Your task to perform on an android device: toggle airplane mode Image 0: 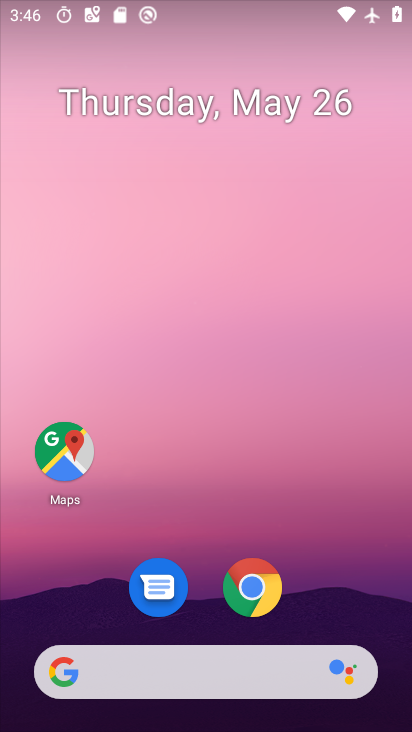
Step 0: drag from (304, 652) to (235, 291)
Your task to perform on an android device: toggle airplane mode Image 1: 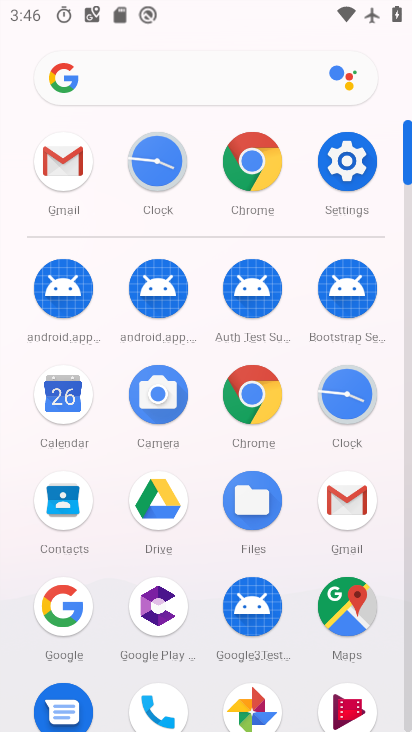
Step 1: click (354, 169)
Your task to perform on an android device: toggle airplane mode Image 2: 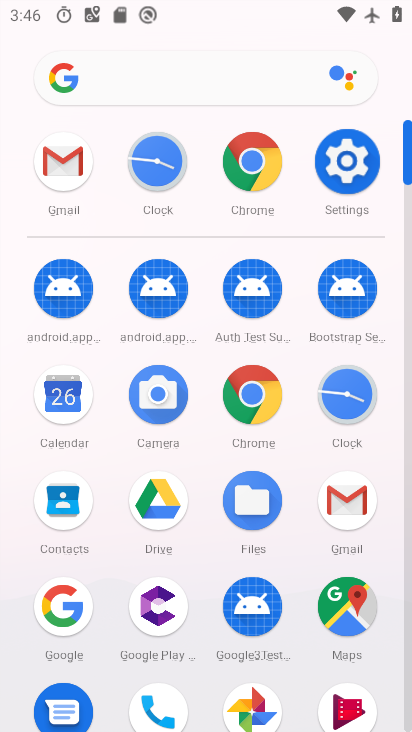
Step 2: click (354, 169)
Your task to perform on an android device: toggle airplane mode Image 3: 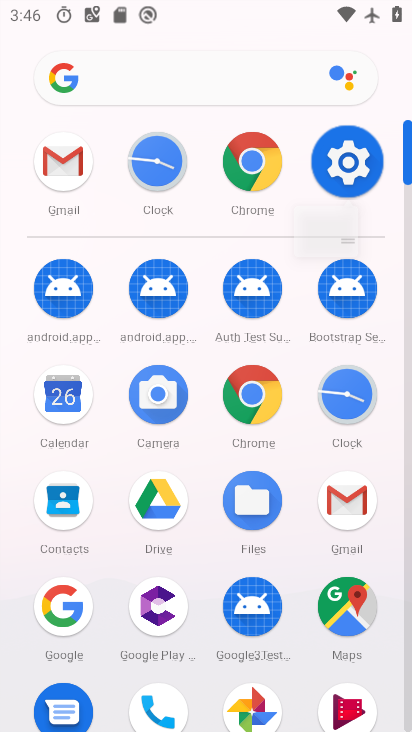
Step 3: click (354, 169)
Your task to perform on an android device: toggle airplane mode Image 4: 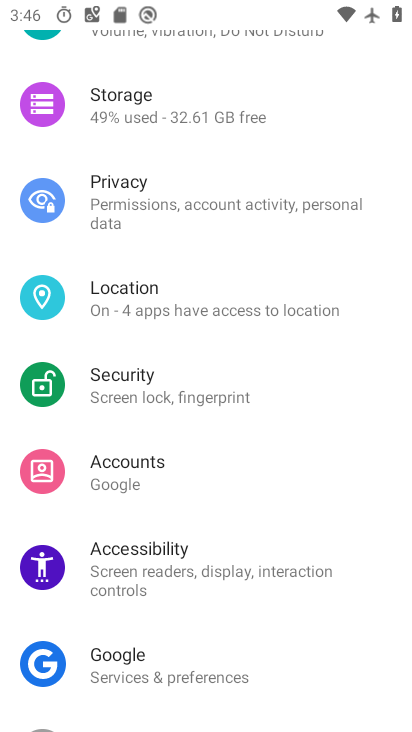
Step 4: drag from (154, 186) to (186, 568)
Your task to perform on an android device: toggle airplane mode Image 5: 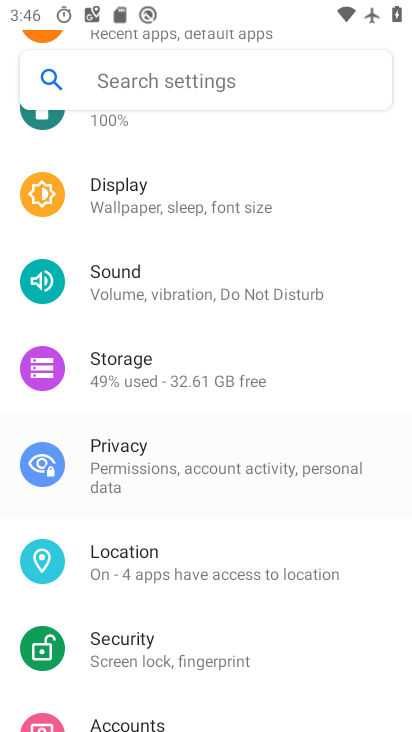
Step 5: drag from (201, 228) to (203, 526)
Your task to perform on an android device: toggle airplane mode Image 6: 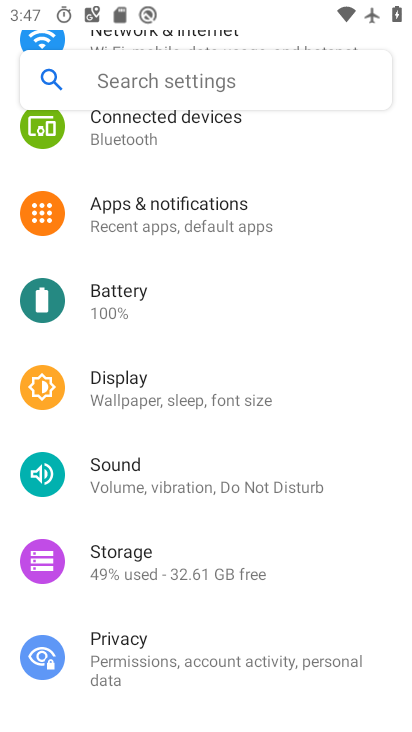
Step 6: drag from (179, 151) to (205, 461)
Your task to perform on an android device: toggle airplane mode Image 7: 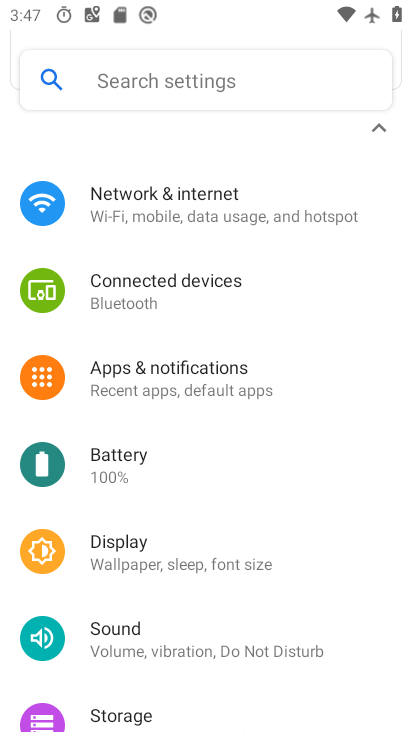
Step 7: drag from (173, 207) to (125, 545)
Your task to perform on an android device: toggle airplane mode Image 8: 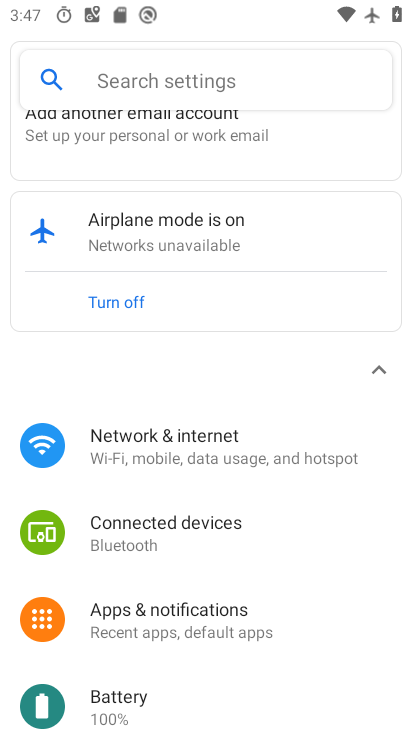
Step 8: drag from (119, 284) to (166, 526)
Your task to perform on an android device: toggle airplane mode Image 9: 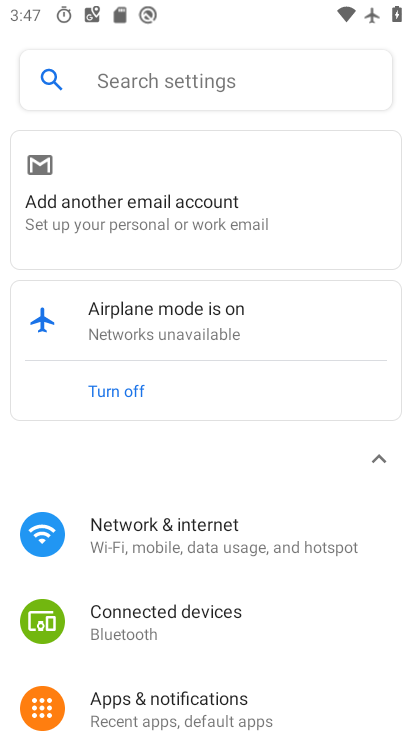
Step 9: click (157, 529)
Your task to perform on an android device: toggle airplane mode Image 10: 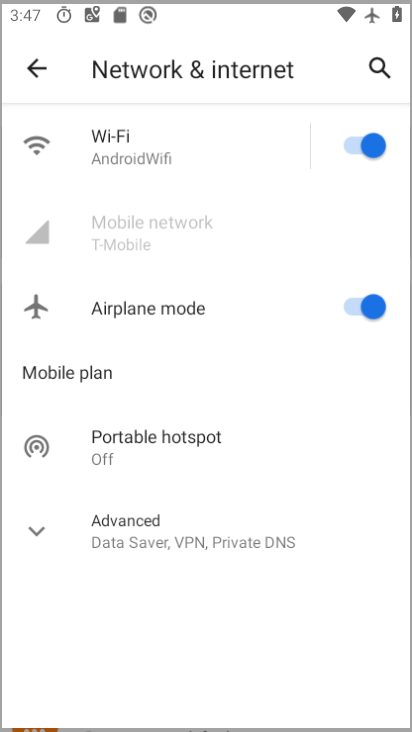
Step 10: click (156, 528)
Your task to perform on an android device: toggle airplane mode Image 11: 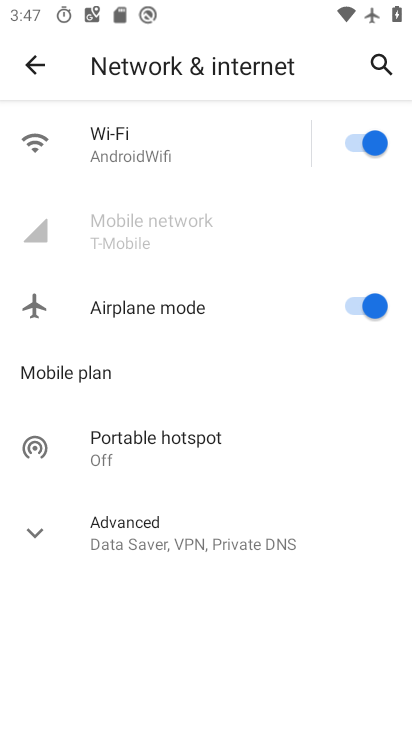
Step 11: click (367, 303)
Your task to perform on an android device: toggle airplane mode Image 12: 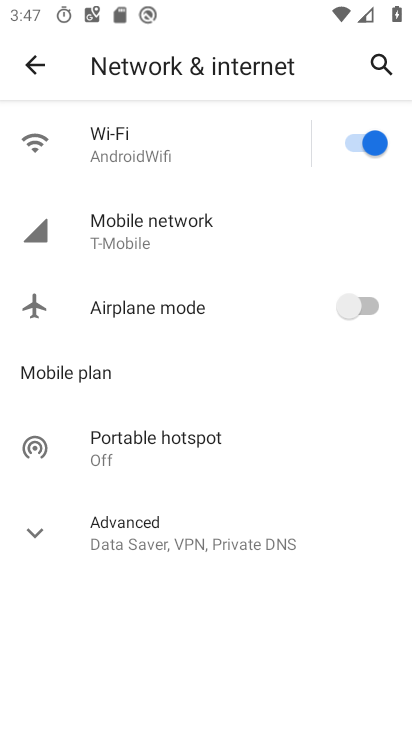
Step 12: task complete